Your task to perform on an android device: Search for a new hair product Image 0: 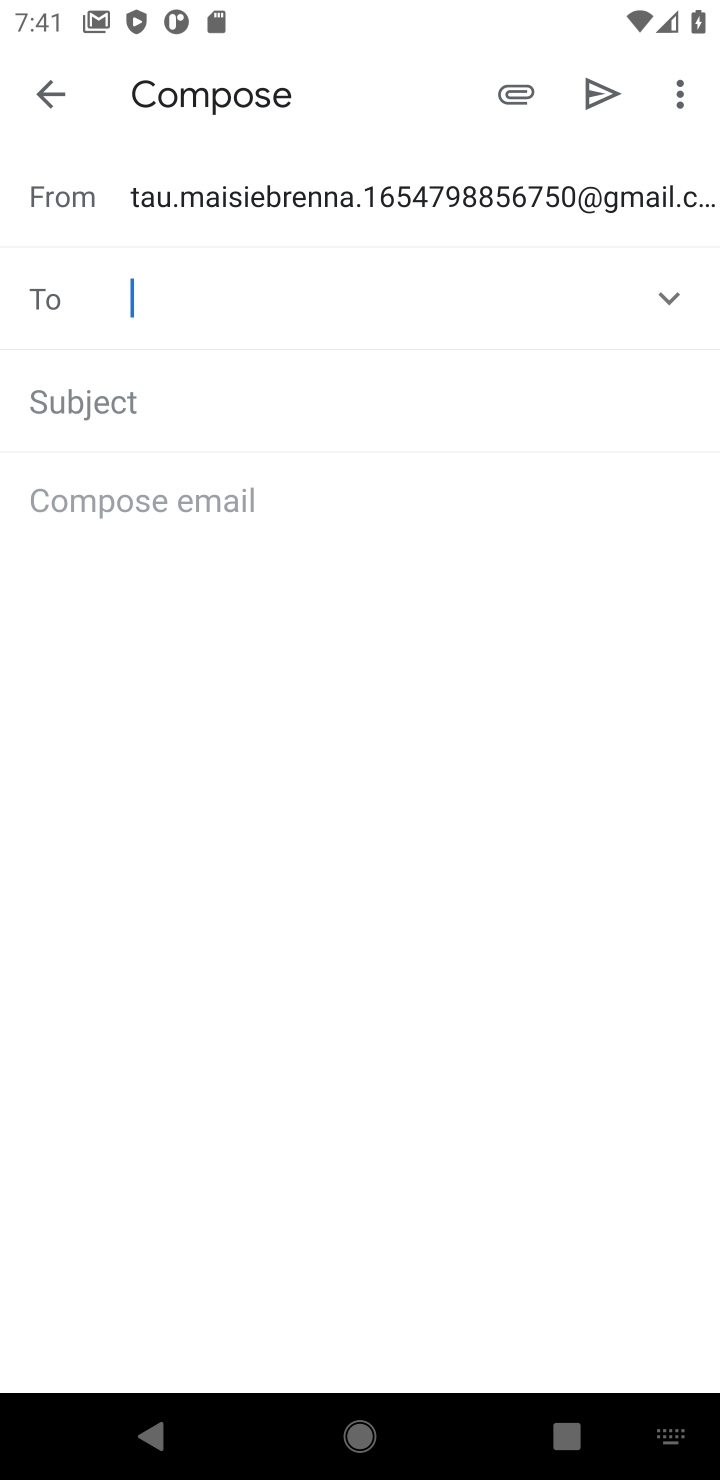
Step 0: press home button
Your task to perform on an android device: Search for a new hair product Image 1: 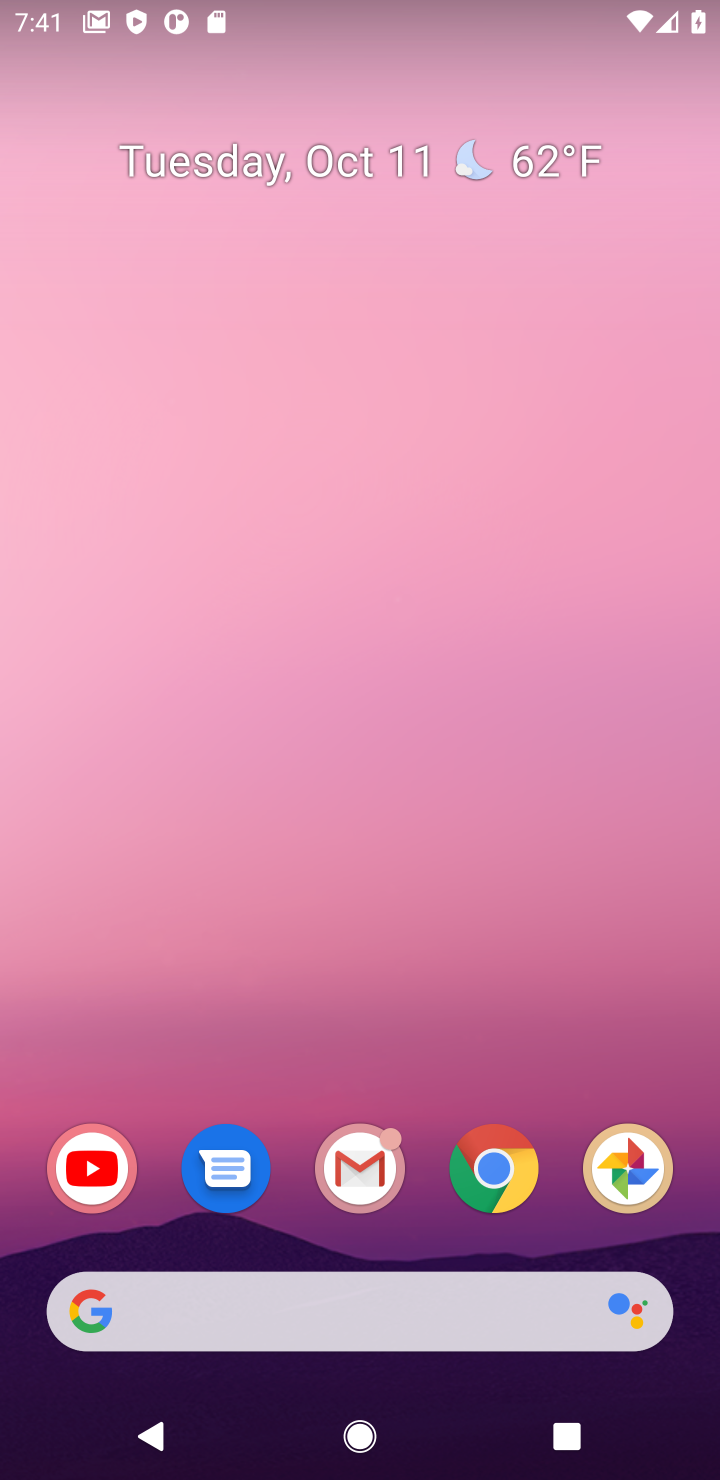
Step 1: click (503, 1186)
Your task to perform on an android device: Search for a new hair product Image 2: 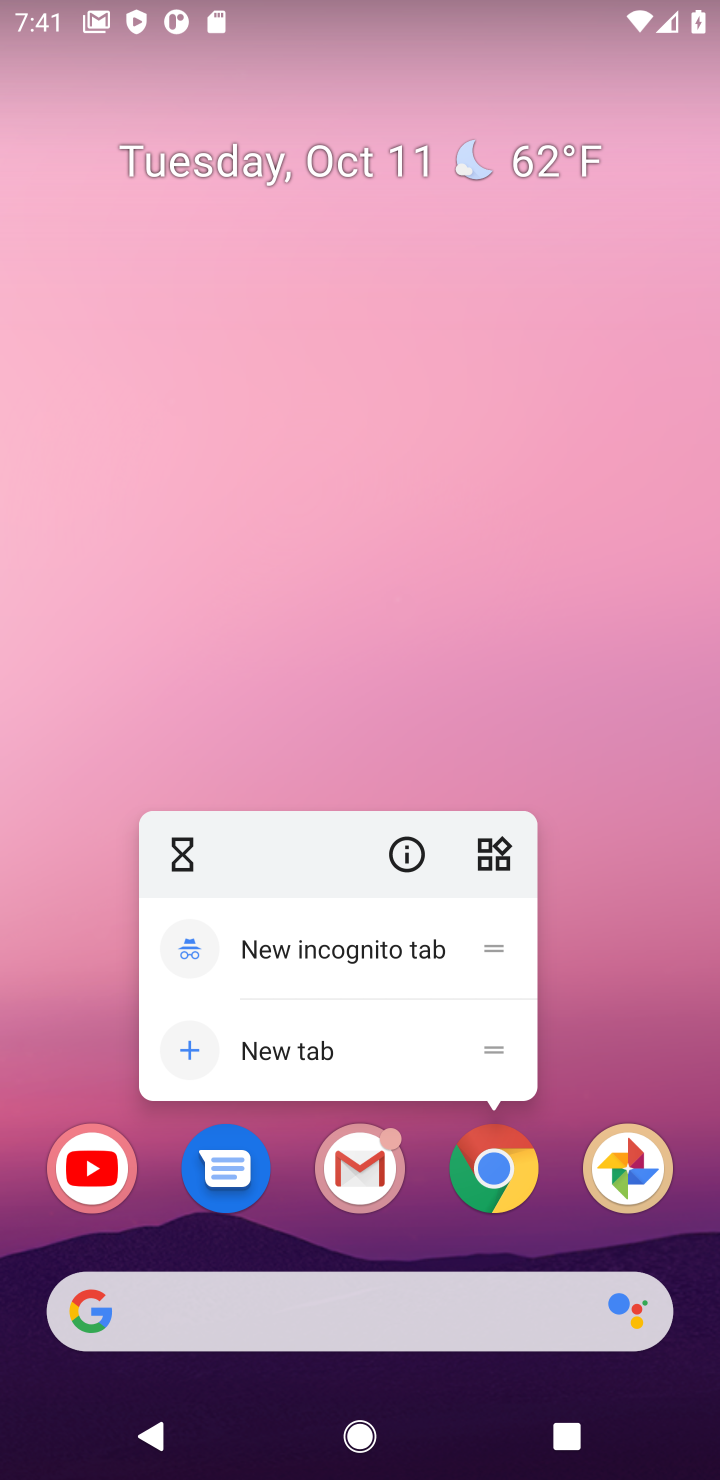
Step 2: click (503, 1171)
Your task to perform on an android device: Search for a new hair product Image 3: 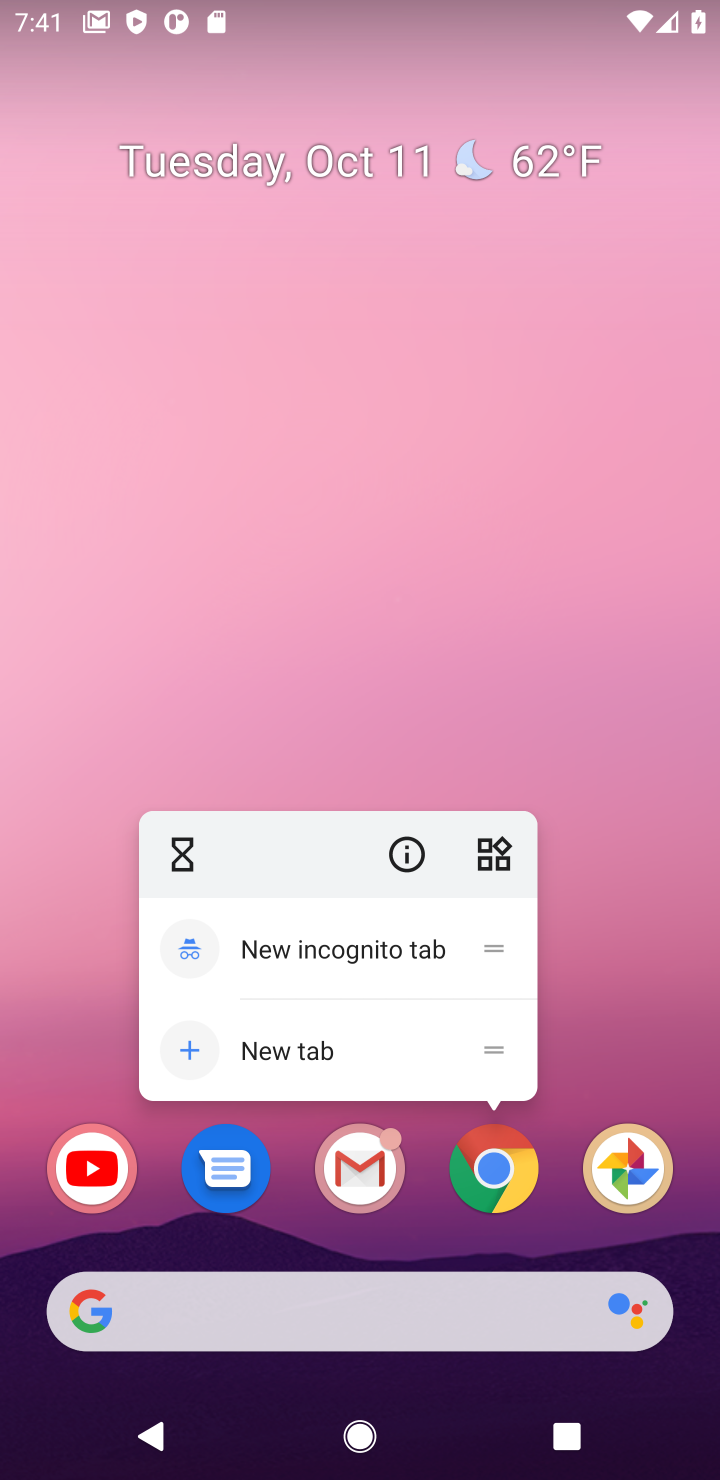
Step 3: click (503, 1178)
Your task to perform on an android device: Search for a new hair product Image 4: 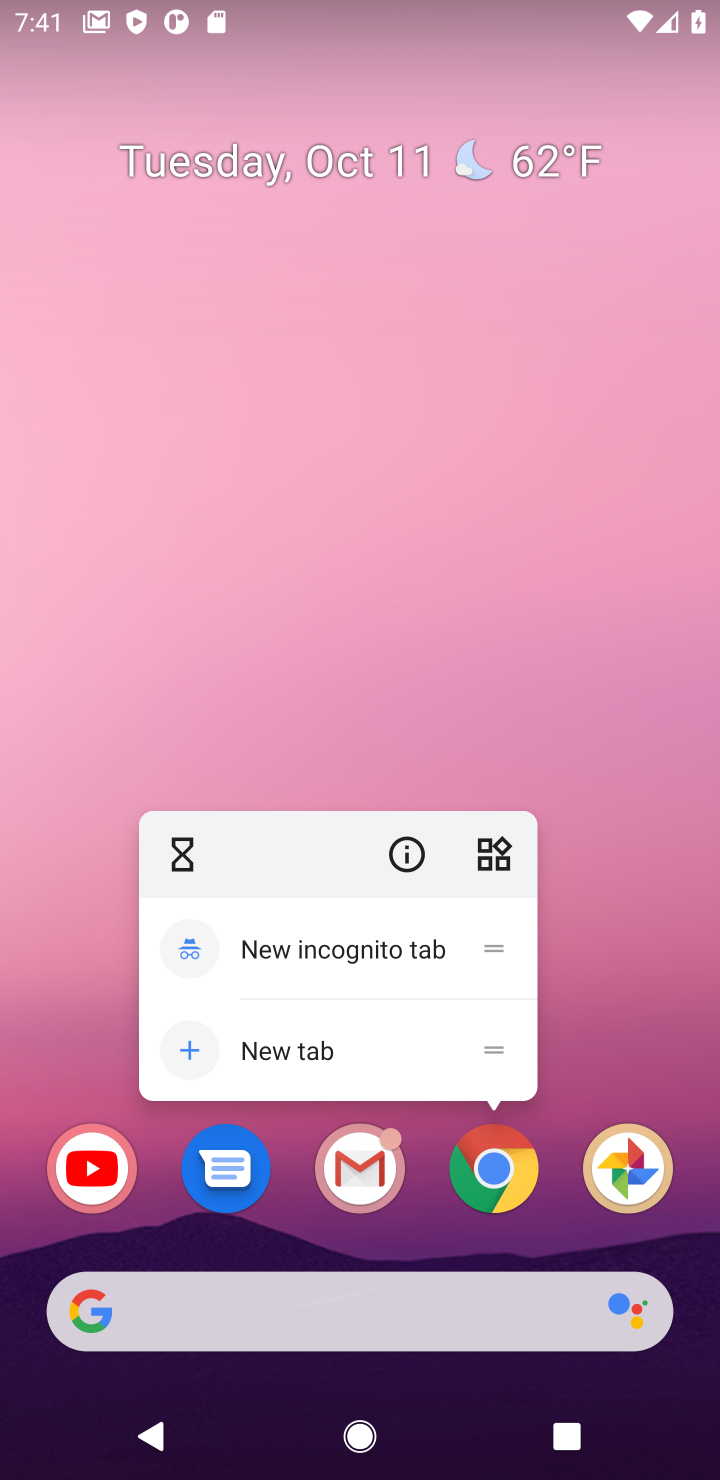
Step 4: press back button
Your task to perform on an android device: Search for a new hair product Image 5: 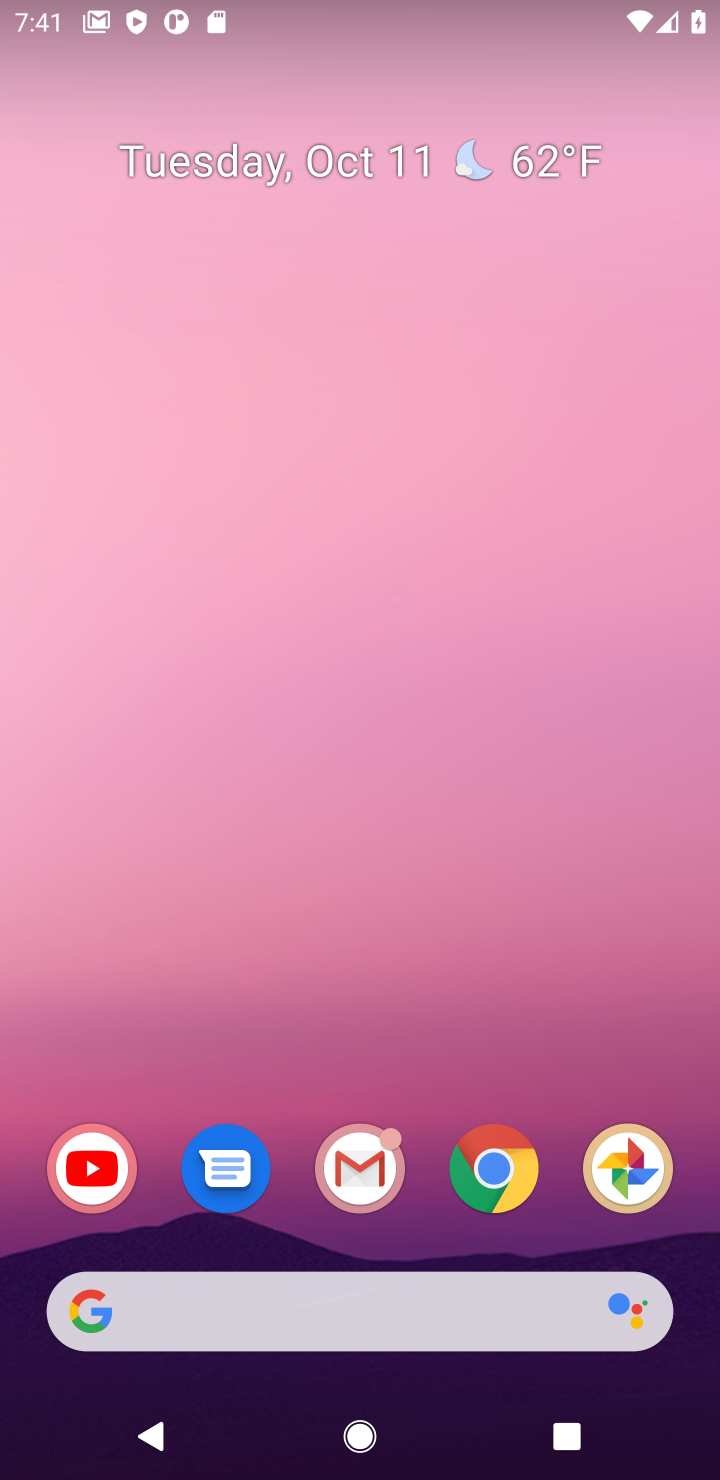
Step 5: press home button
Your task to perform on an android device: Search for a new hair product Image 6: 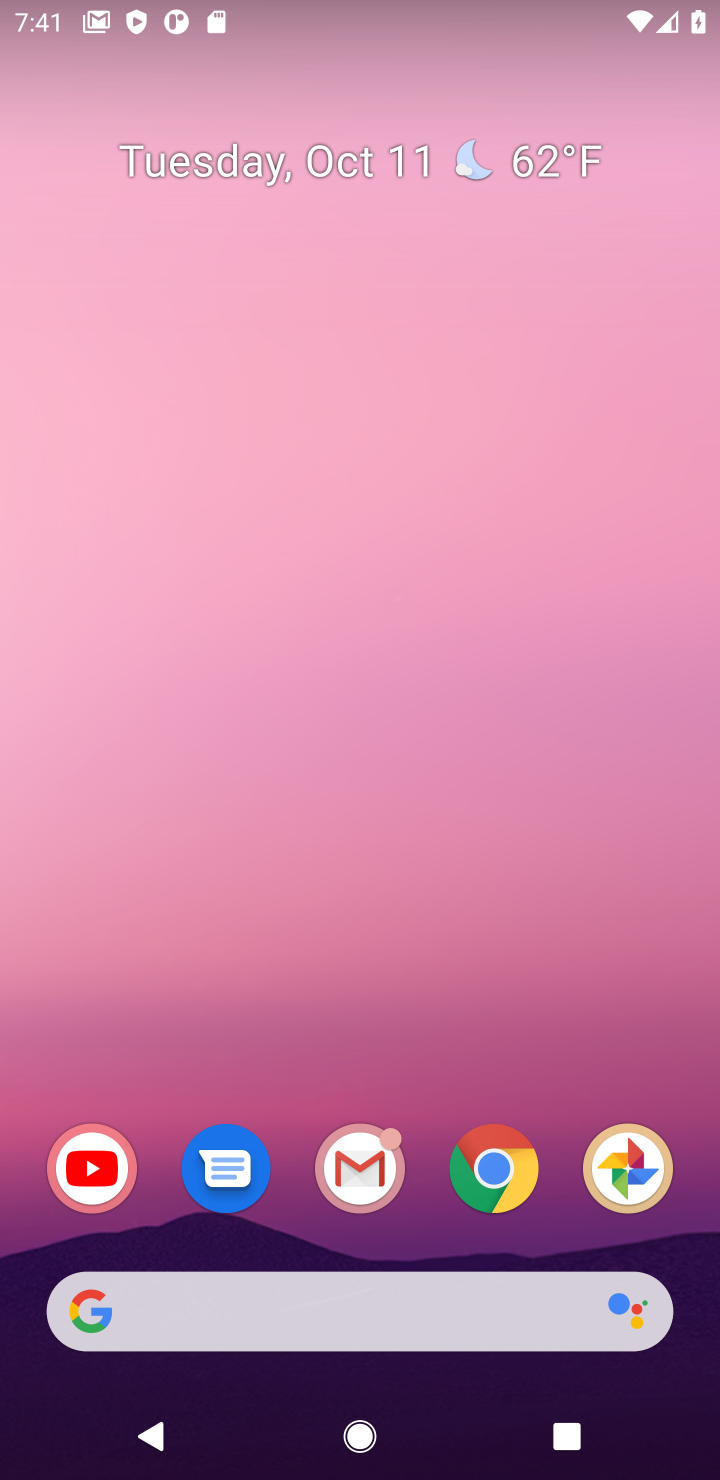
Step 6: click (508, 1160)
Your task to perform on an android device: Search for a new hair product Image 7: 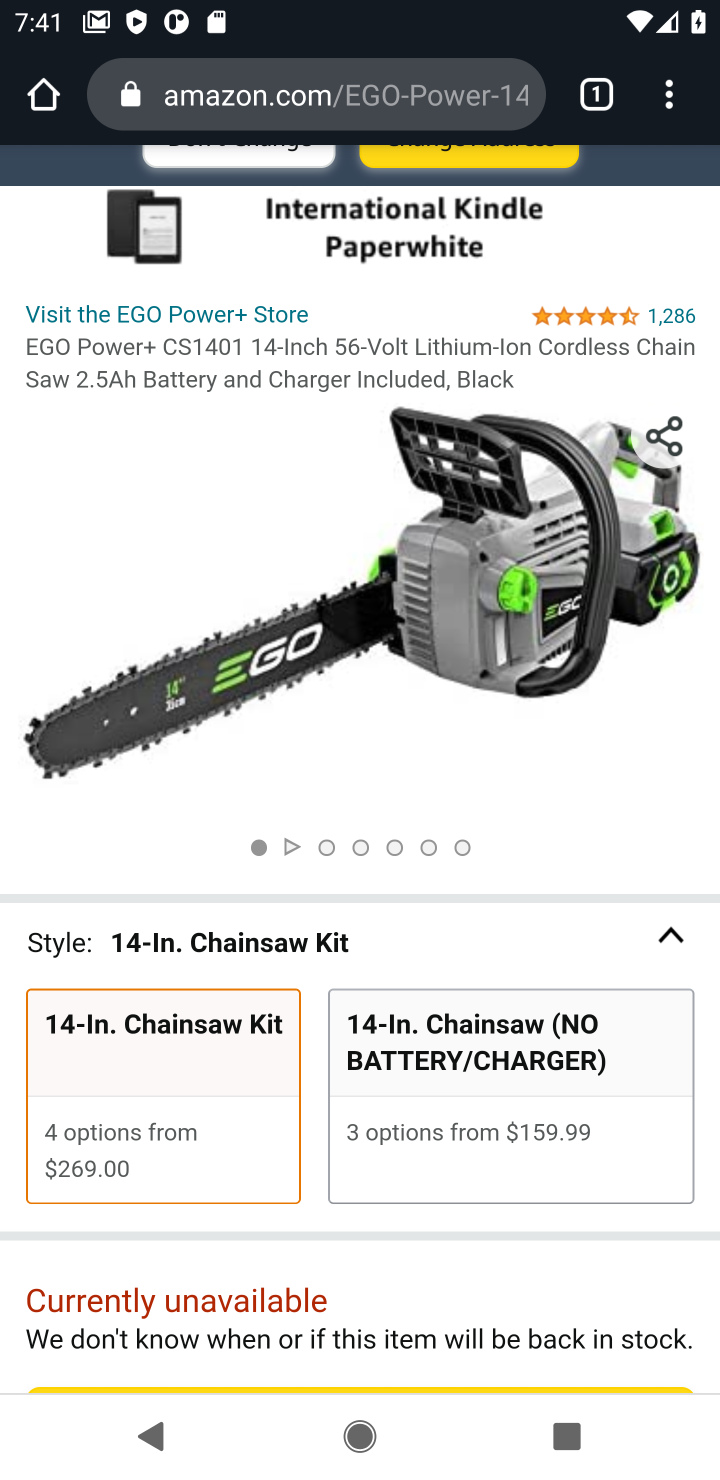
Step 7: click (402, 89)
Your task to perform on an android device: Search for a new hair product Image 8: 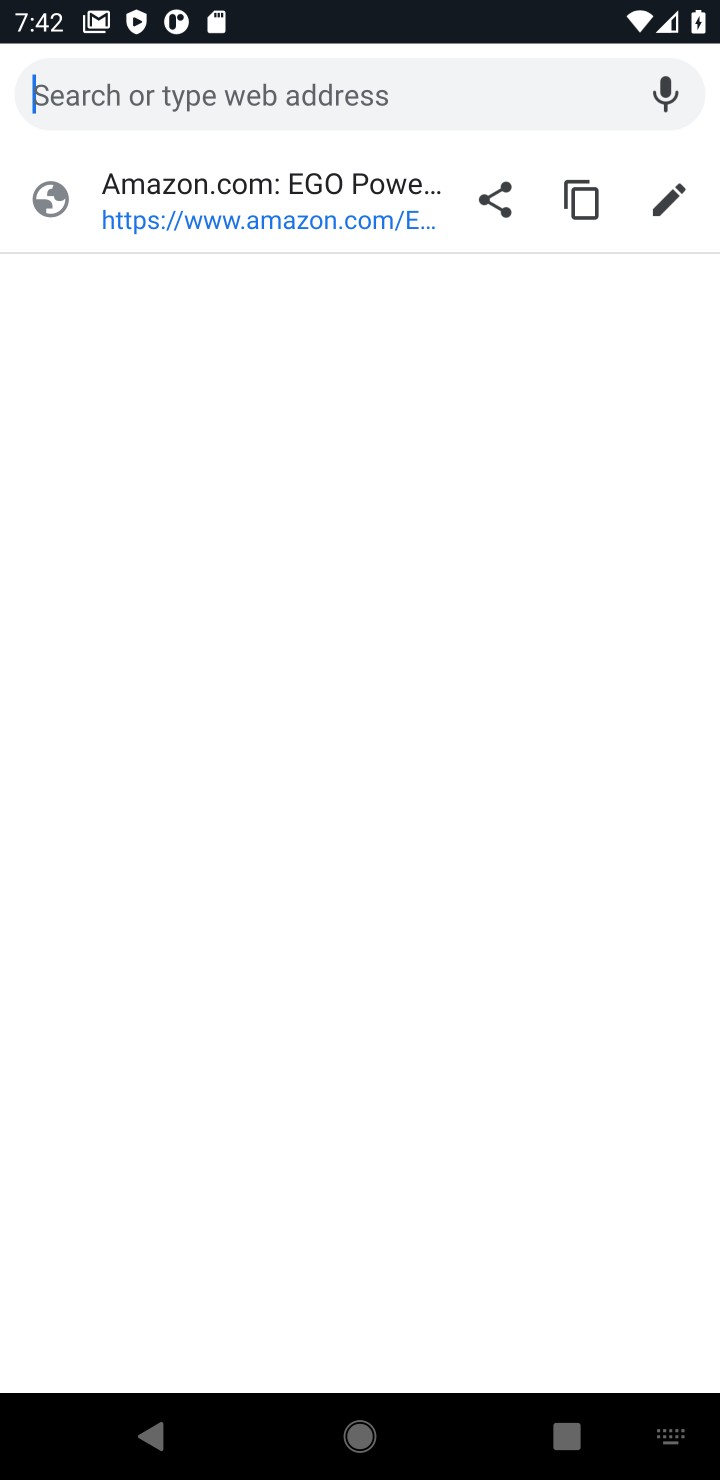
Step 8: type "new hair product"
Your task to perform on an android device: Search for a new hair product Image 9: 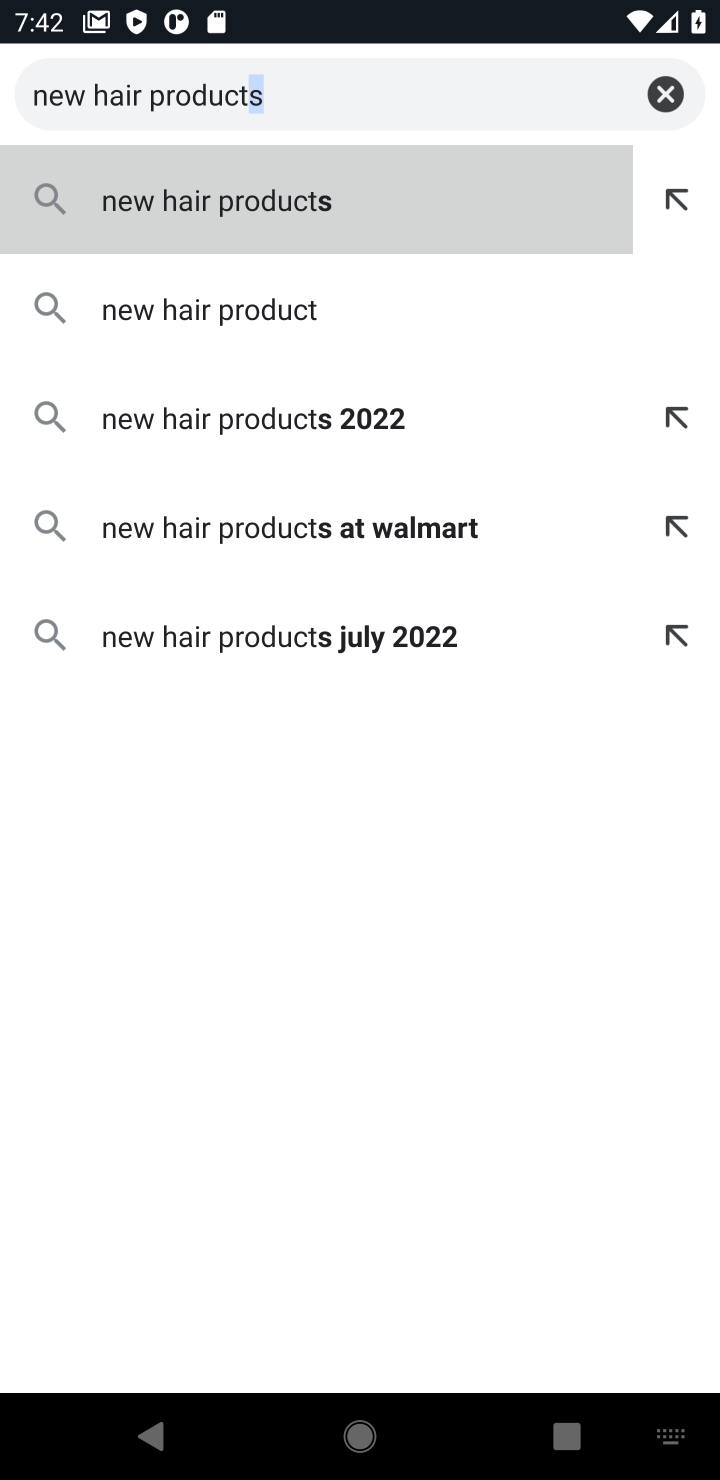
Step 9: click (256, 303)
Your task to perform on an android device: Search for a new hair product Image 10: 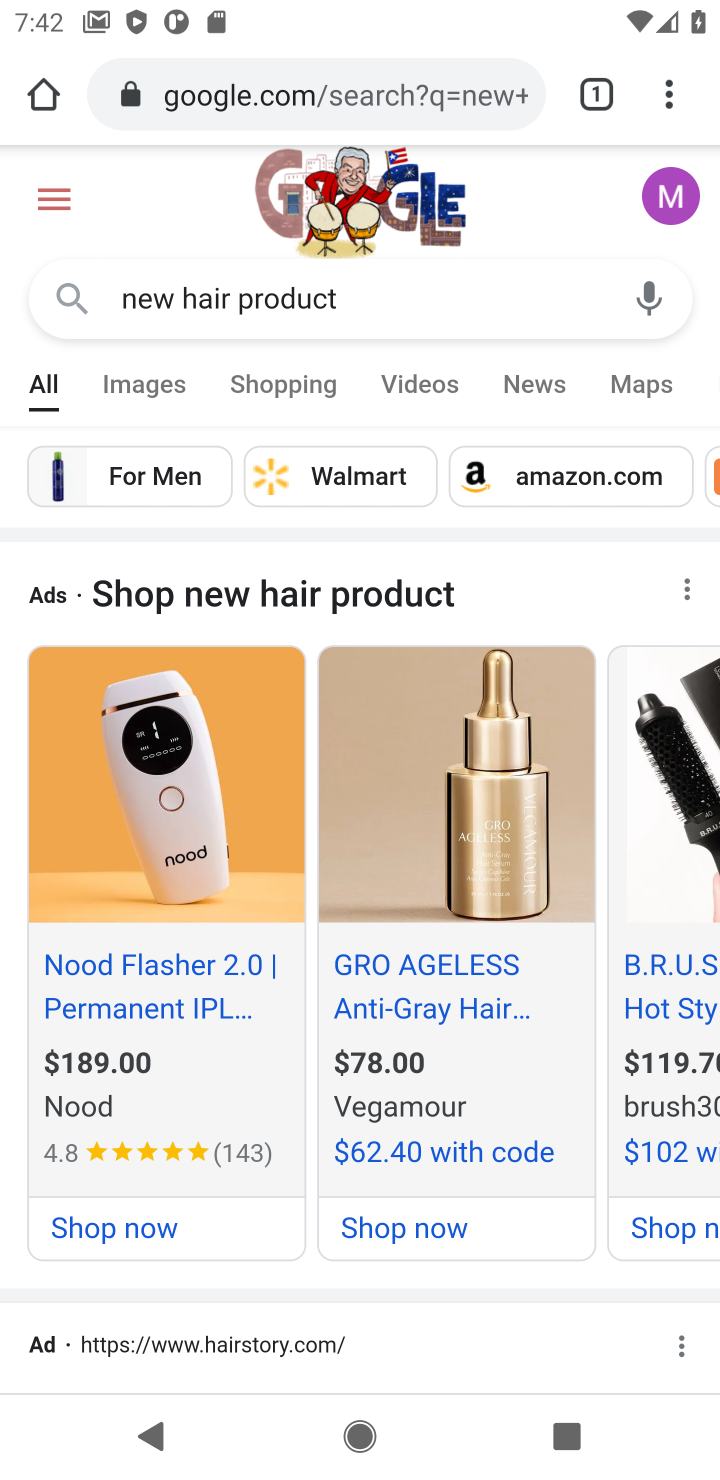
Step 10: drag from (216, 1037) to (322, 542)
Your task to perform on an android device: Search for a new hair product Image 11: 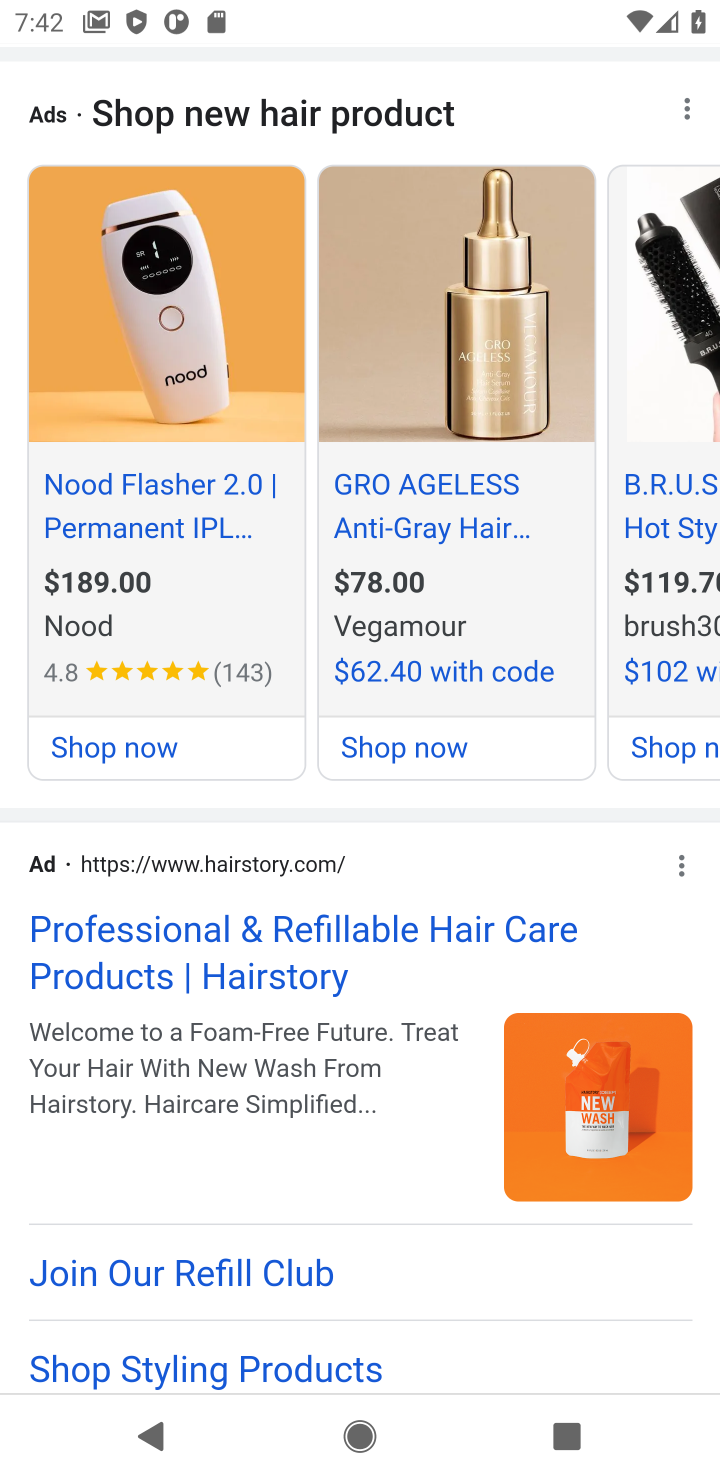
Step 11: drag from (343, 962) to (420, 412)
Your task to perform on an android device: Search for a new hair product Image 12: 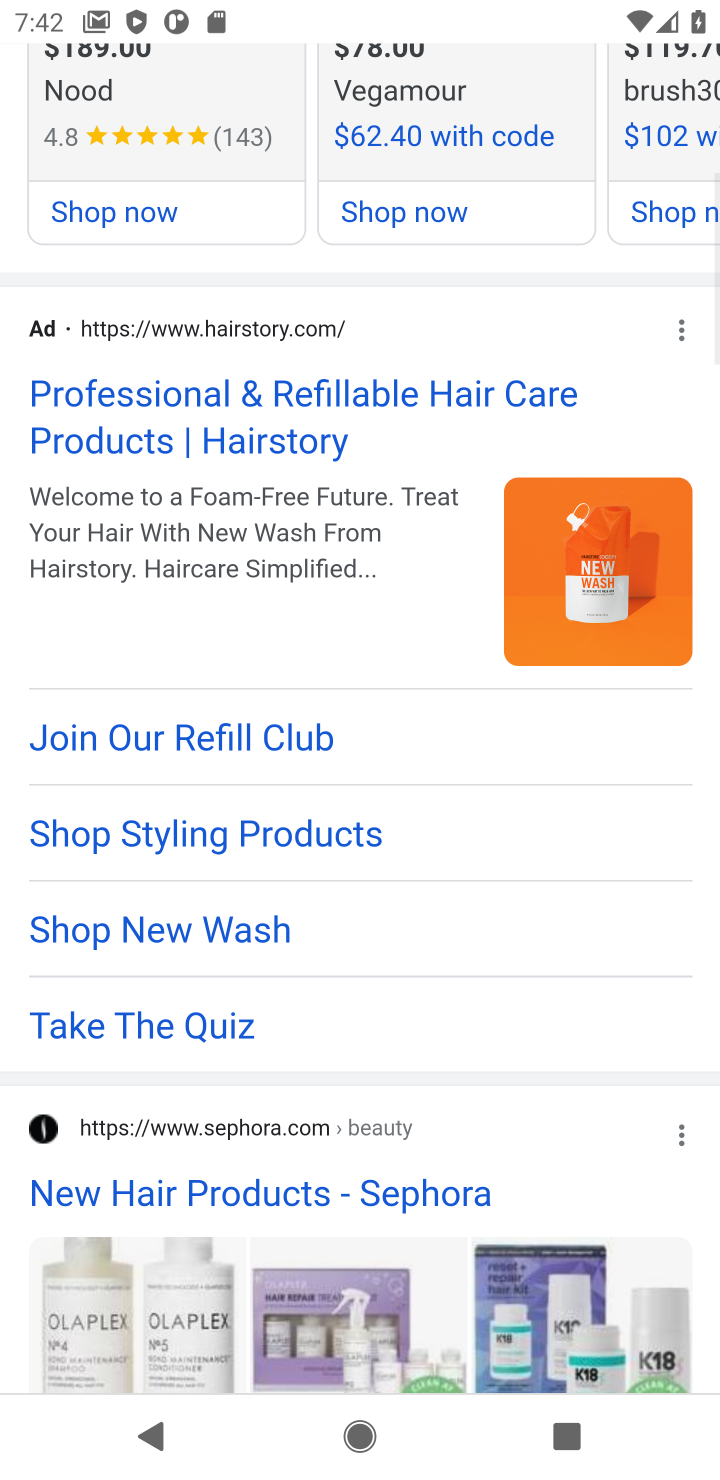
Step 12: drag from (352, 1033) to (358, 399)
Your task to perform on an android device: Search for a new hair product Image 13: 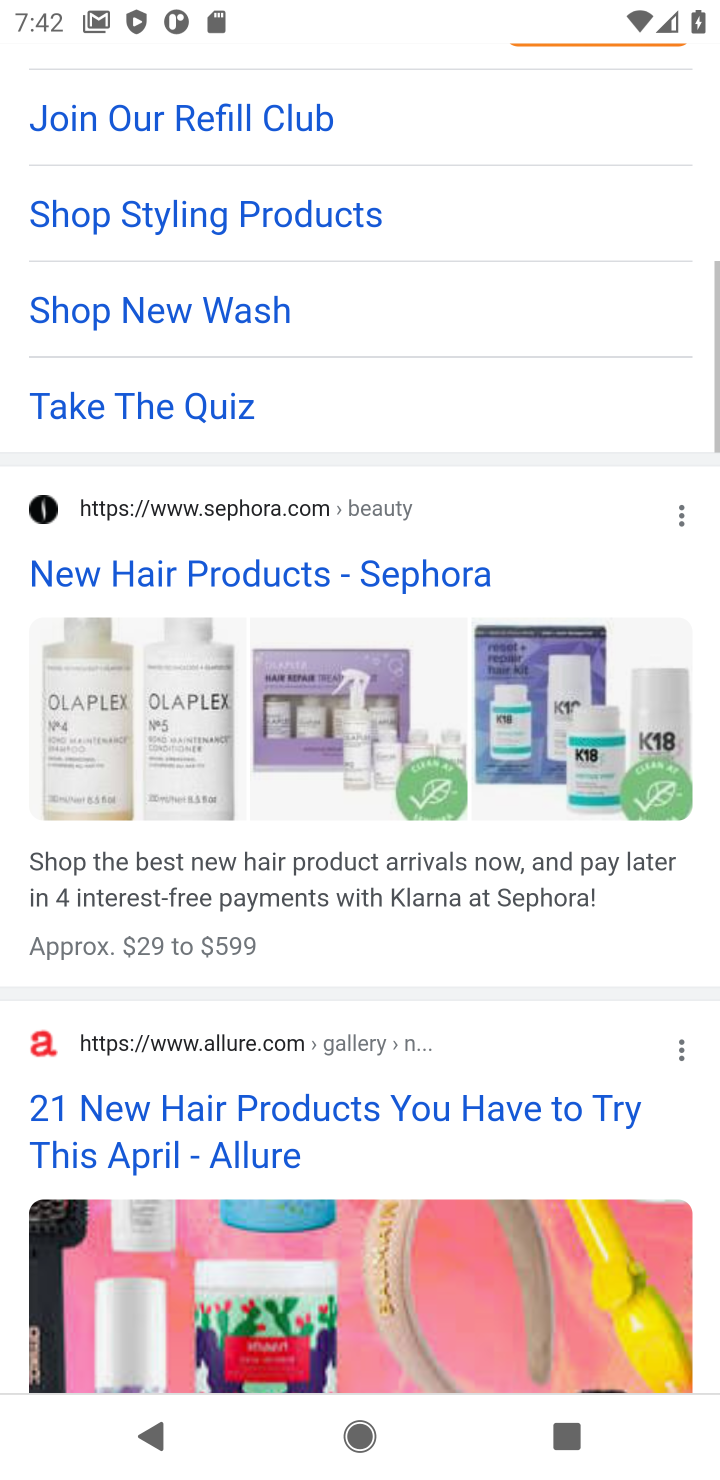
Step 13: drag from (229, 1012) to (229, 714)
Your task to perform on an android device: Search for a new hair product Image 14: 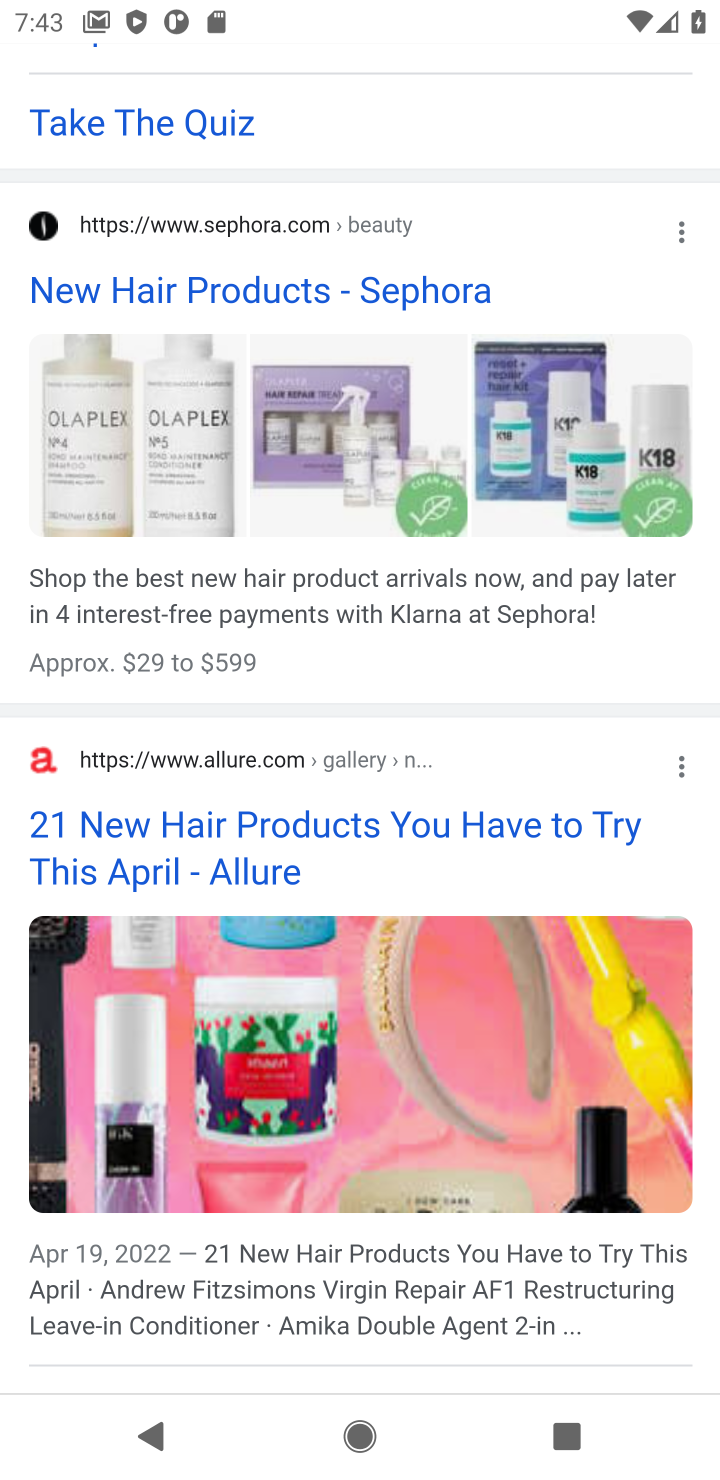
Step 14: drag from (373, 1076) to (338, 631)
Your task to perform on an android device: Search for a new hair product Image 15: 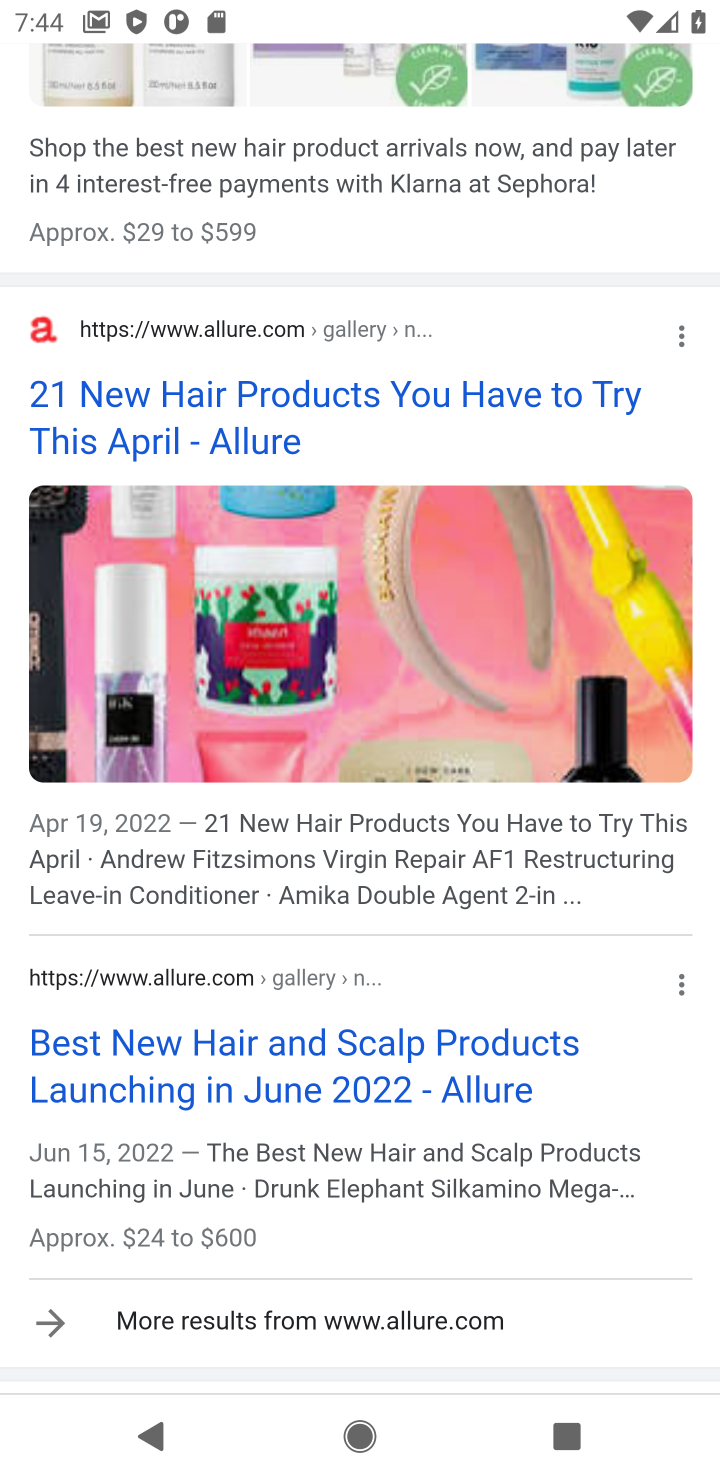
Step 15: click (363, 539)
Your task to perform on an android device: Search for a new hair product Image 16: 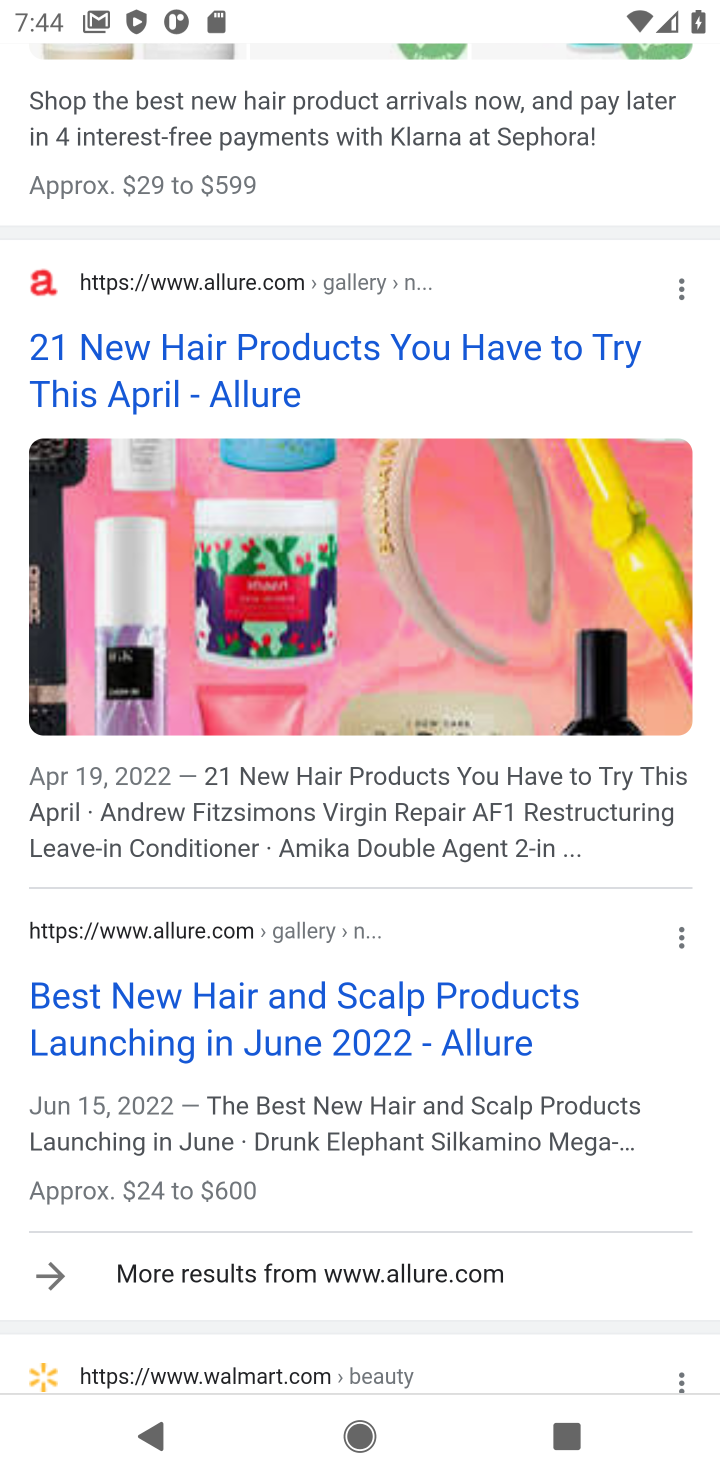
Step 16: click (466, 472)
Your task to perform on an android device: Search for a new hair product Image 17: 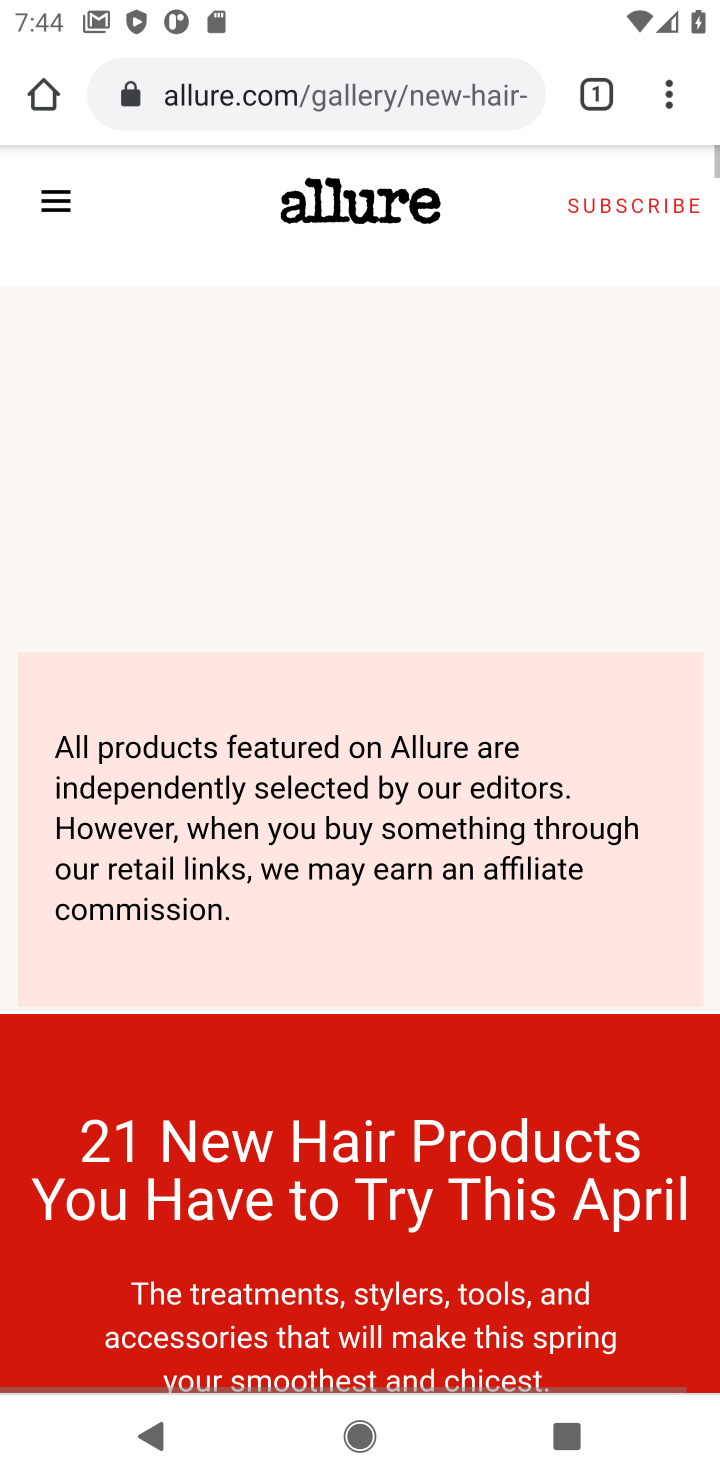
Step 17: click (201, 606)
Your task to perform on an android device: Search for a new hair product Image 18: 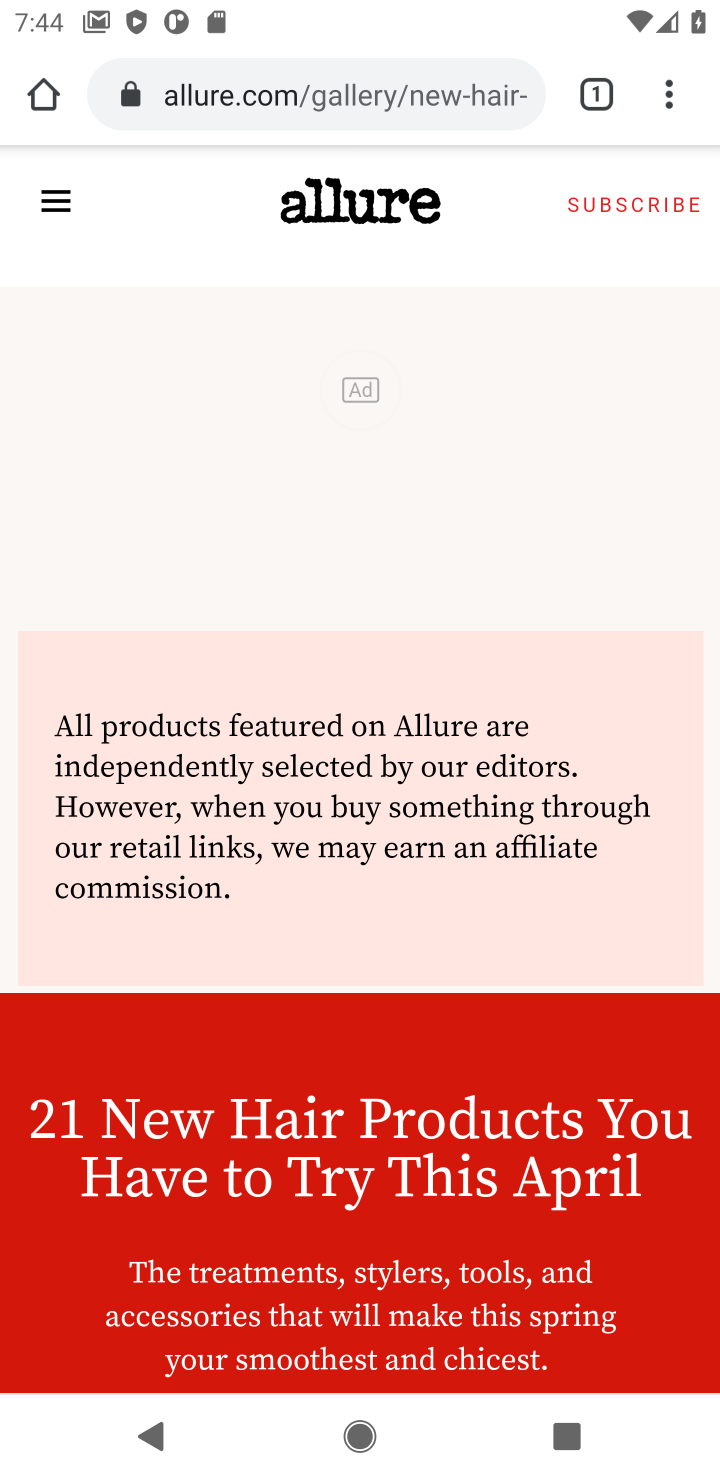
Step 18: drag from (316, 1027) to (348, 698)
Your task to perform on an android device: Search for a new hair product Image 19: 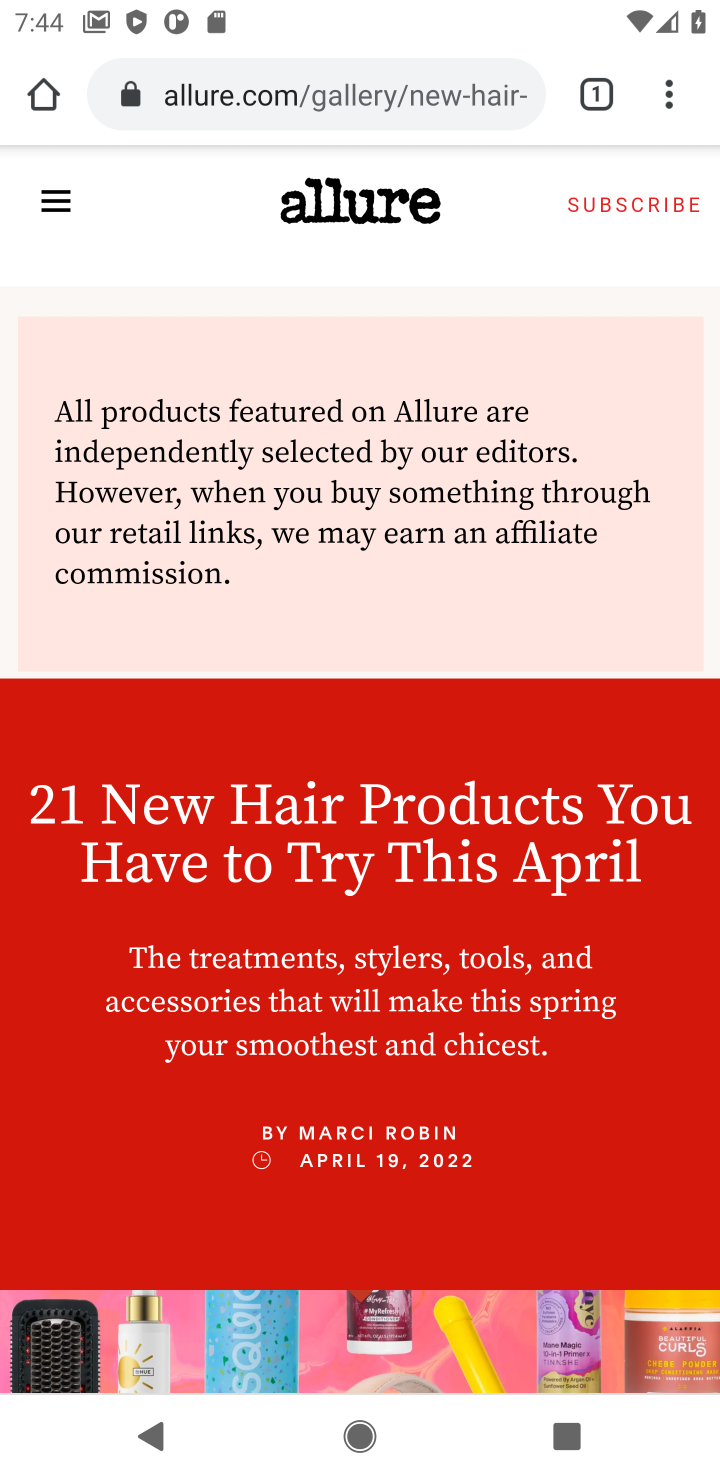
Step 19: drag from (323, 1065) to (427, 516)
Your task to perform on an android device: Search for a new hair product Image 20: 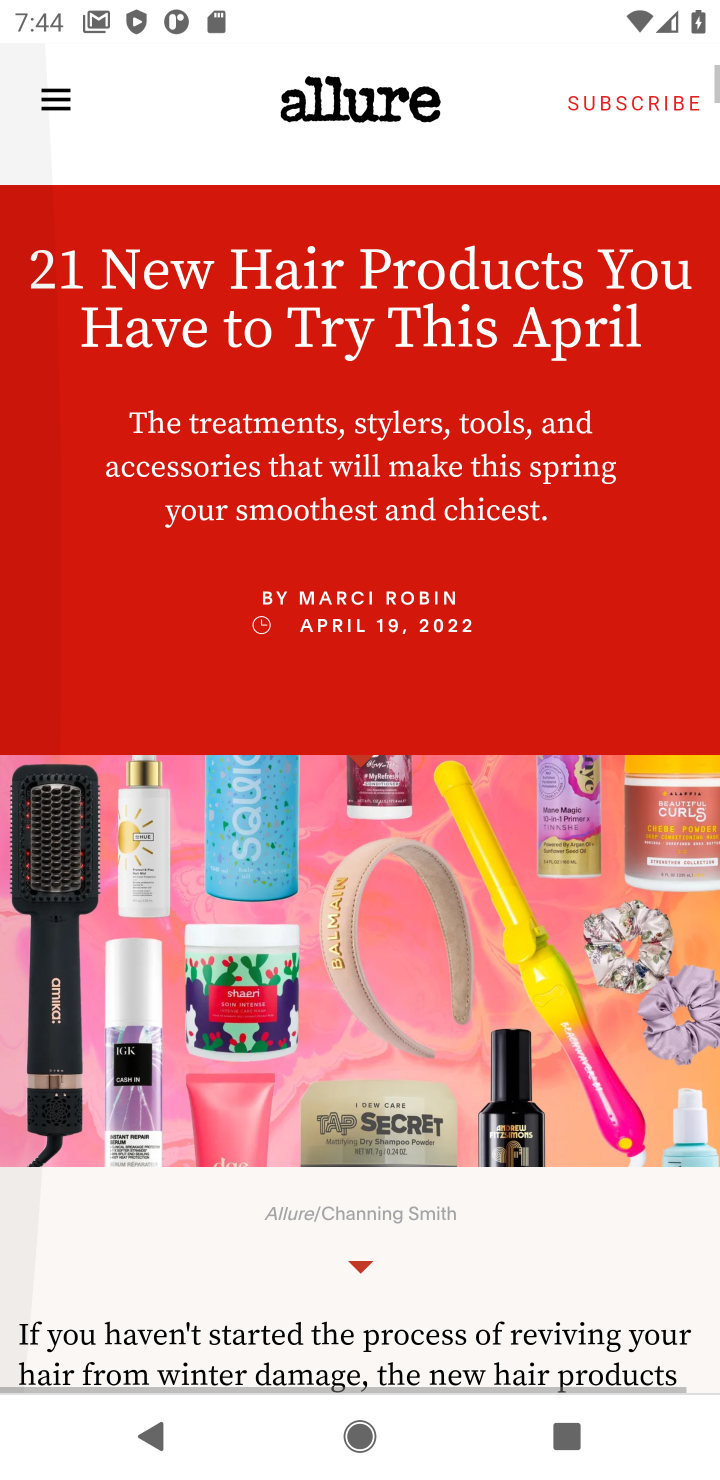
Step 20: click (455, 625)
Your task to perform on an android device: Search for a new hair product Image 21: 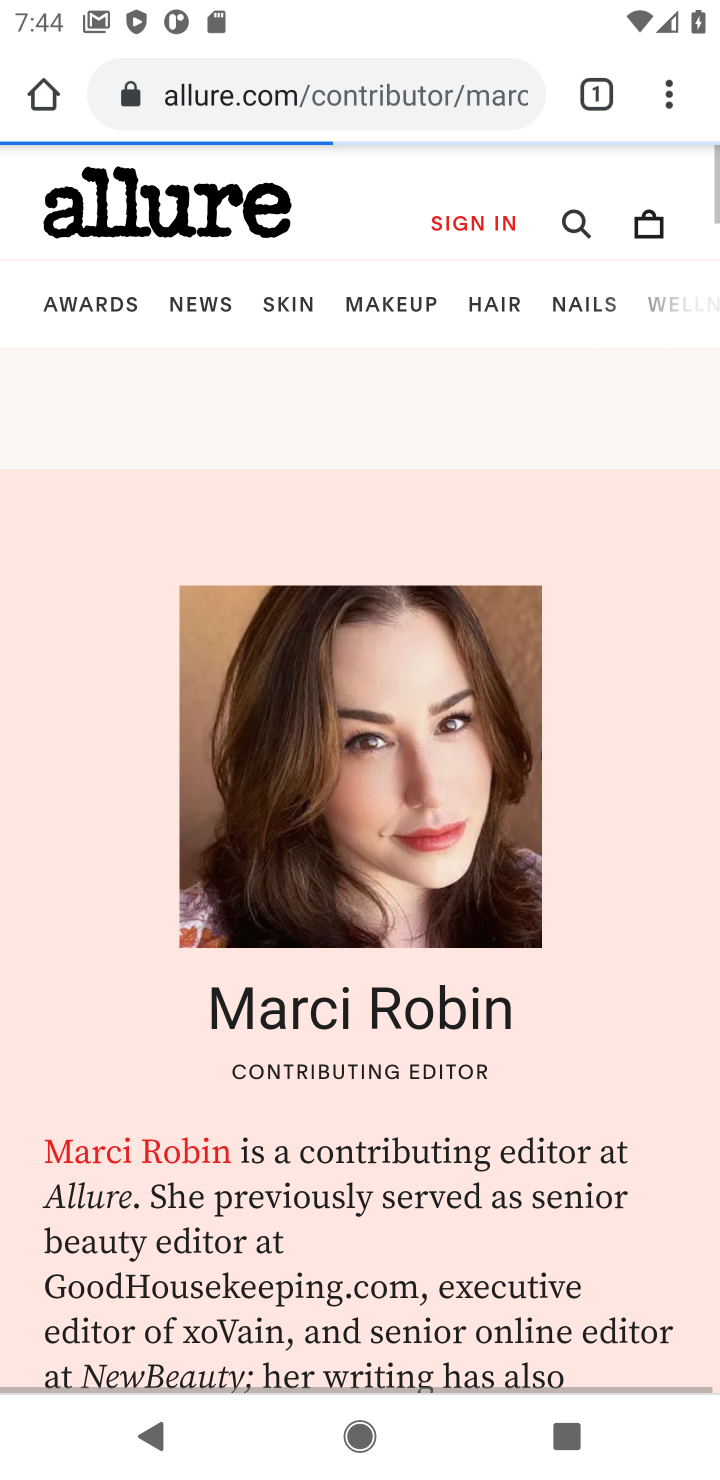
Step 21: task complete